Your task to perform on an android device: Open the contacts app Image 0: 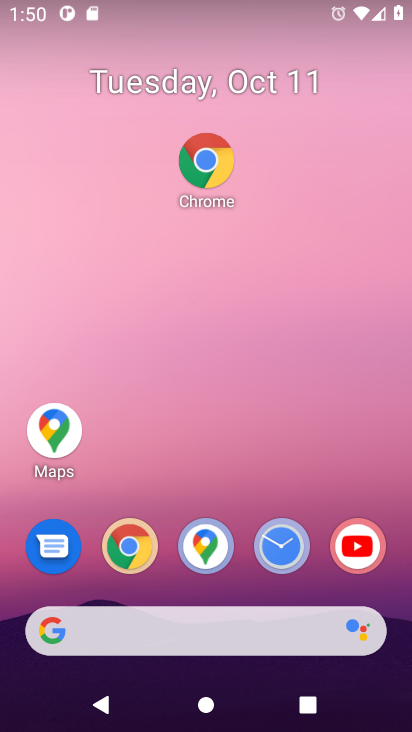
Step 0: drag from (190, 587) to (204, 210)
Your task to perform on an android device: Open the contacts app Image 1: 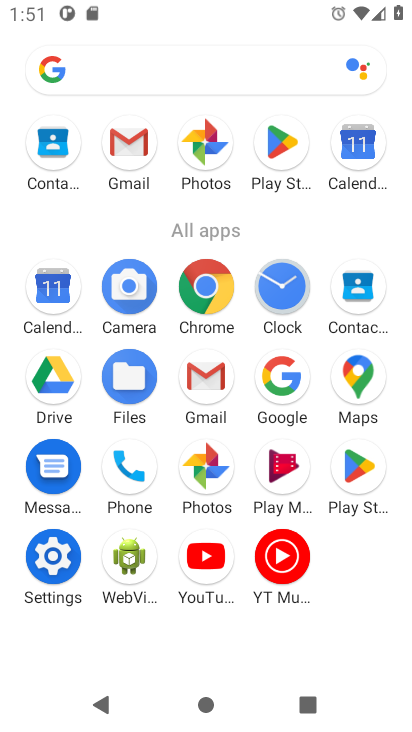
Step 1: click (366, 292)
Your task to perform on an android device: Open the contacts app Image 2: 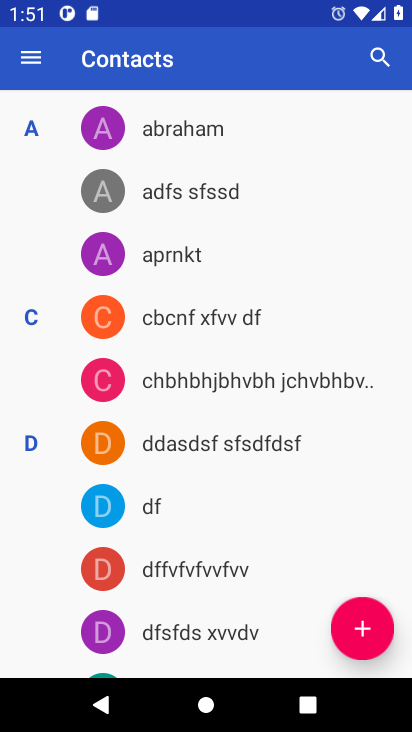
Step 2: task complete